Your task to perform on an android device: turn off javascript in the chrome app Image 0: 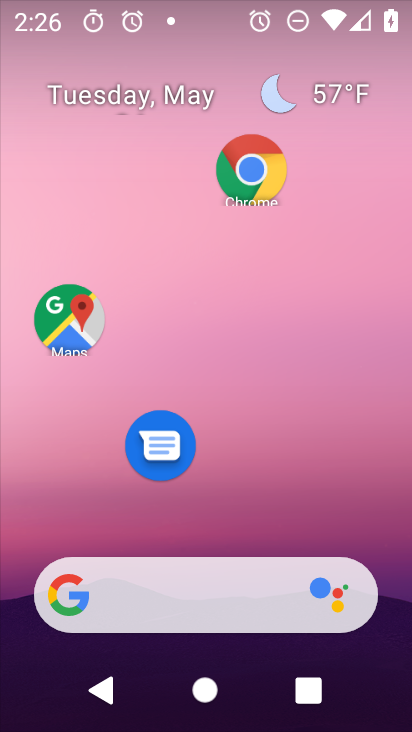
Step 0: click (254, 172)
Your task to perform on an android device: turn off javascript in the chrome app Image 1: 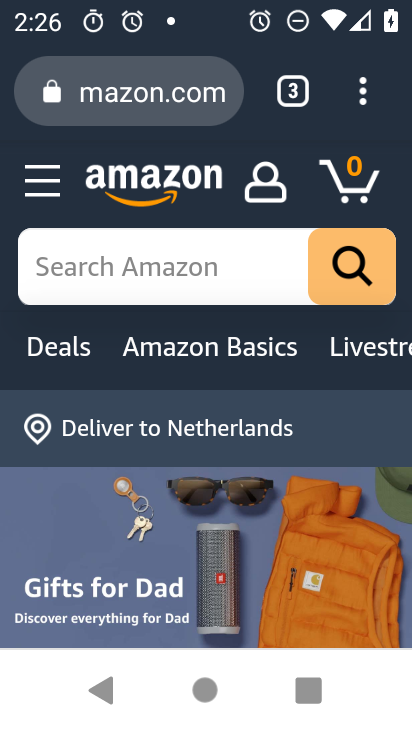
Step 1: click (363, 100)
Your task to perform on an android device: turn off javascript in the chrome app Image 2: 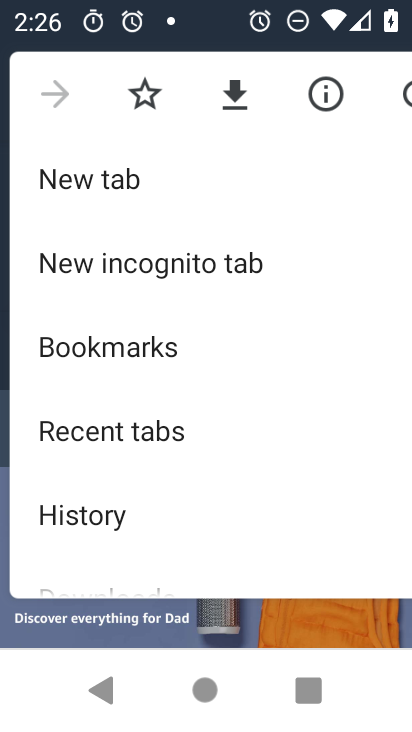
Step 2: drag from (138, 555) to (138, 196)
Your task to perform on an android device: turn off javascript in the chrome app Image 3: 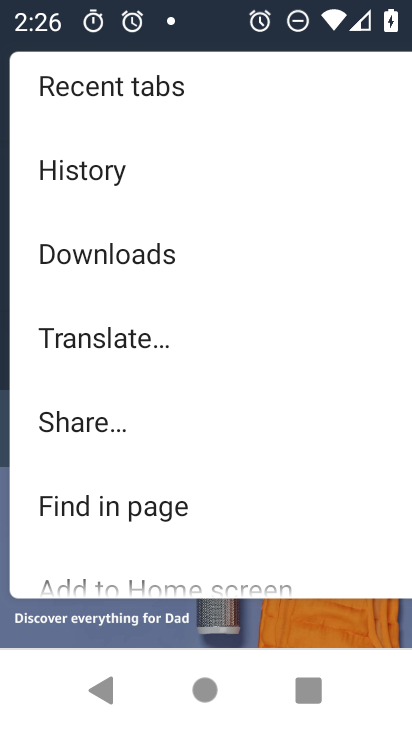
Step 3: drag from (81, 550) to (93, 188)
Your task to perform on an android device: turn off javascript in the chrome app Image 4: 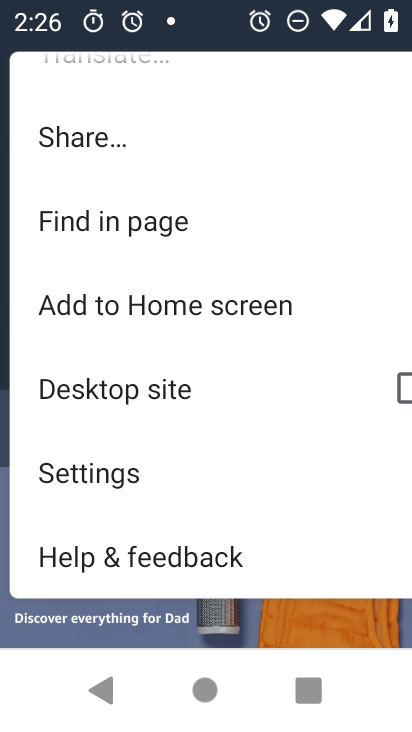
Step 4: click (107, 477)
Your task to perform on an android device: turn off javascript in the chrome app Image 5: 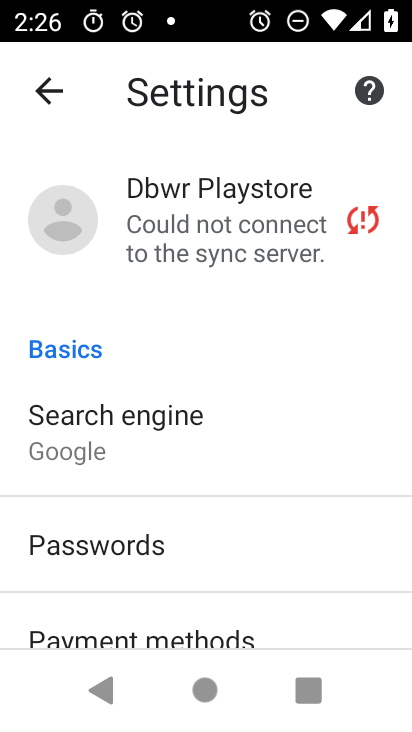
Step 5: drag from (230, 624) to (238, 288)
Your task to perform on an android device: turn off javascript in the chrome app Image 6: 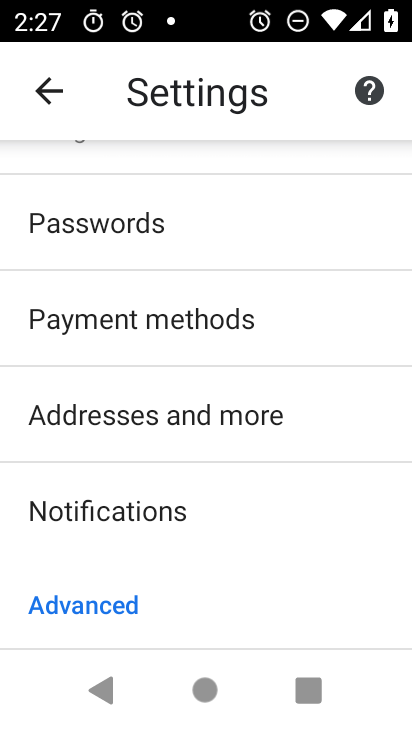
Step 6: drag from (223, 611) to (255, 296)
Your task to perform on an android device: turn off javascript in the chrome app Image 7: 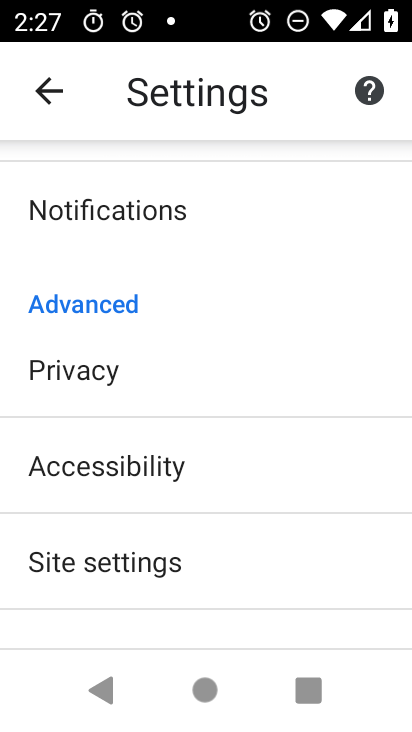
Step 7: click (160, 564)
Your task to perform on an android device: turn off javascript in the chrome app Image 8: 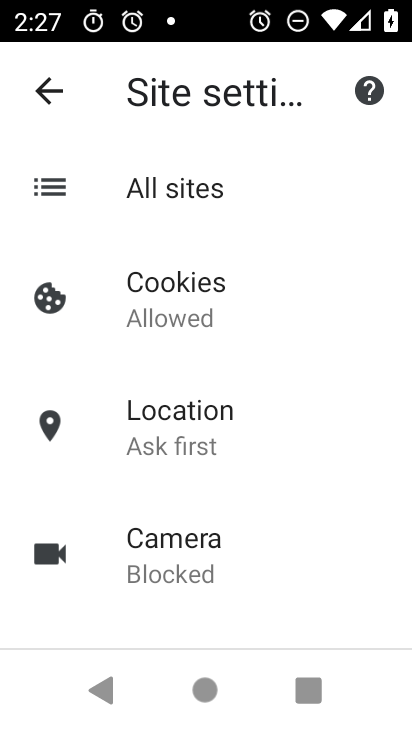
Step 8: drag from (209, 586) to (215, 241)
Your task to perform on an android device: turn off javascript in the chrome app Image 9: 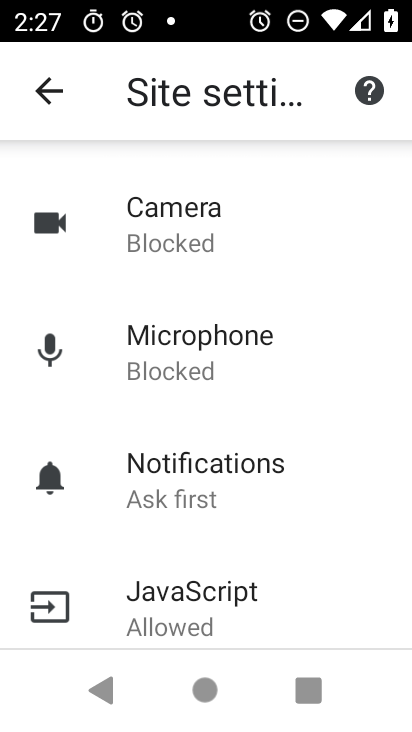
Step 9: click (186, 595)
Your task to perform on an android device: turn off javascript in the chrome app Image 10: 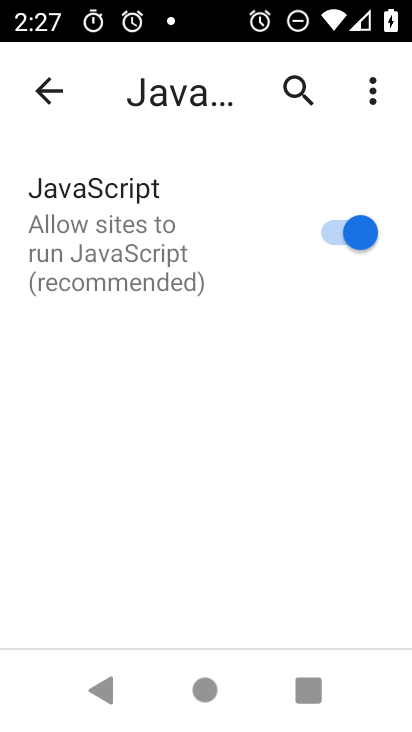
Step 10: click (330, 228)
Your task to perform on an android device: turn off javascript in the chrome app Image 11: 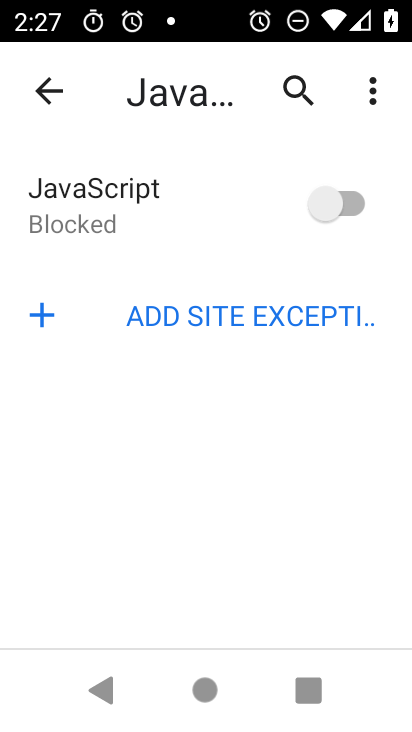
Step 11: task complete